Your task to perform on an android device: Open location settings Image 0: 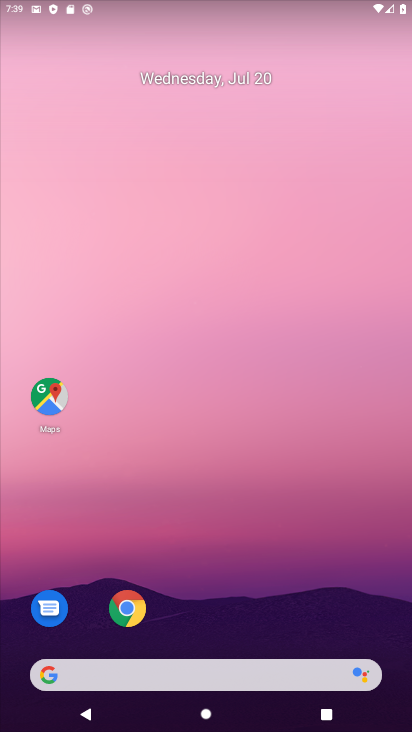
Step 0: drag from (19, 532) to (185, 18)
Your task to perform on an android device: Open location settings Image 1: 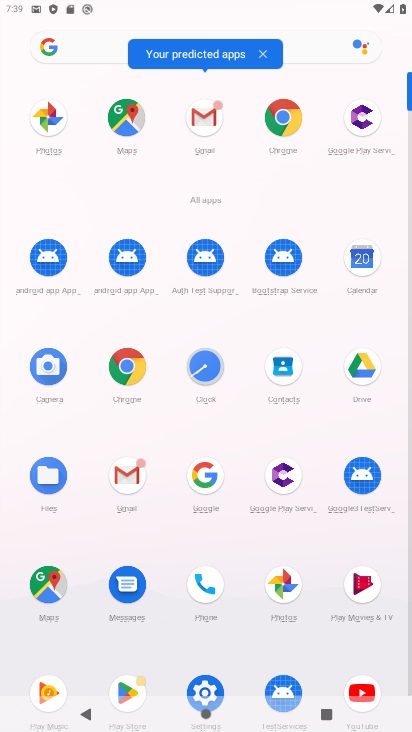
Step 1: click (195, 680)
Your task to perform on an android device: Open location settings Image 2: 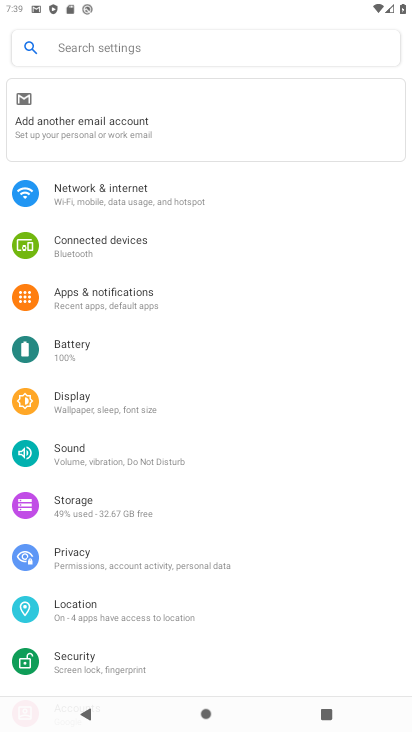
Step 2: click (74, 624)
Your task to perform on an android device: Open location settings Image 3: 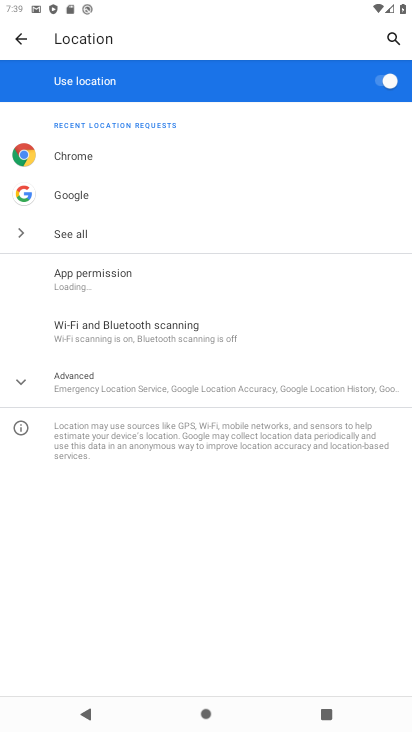
Step 3: task complete